Your task to perform on an android device: change alarm snooze length Image 0: 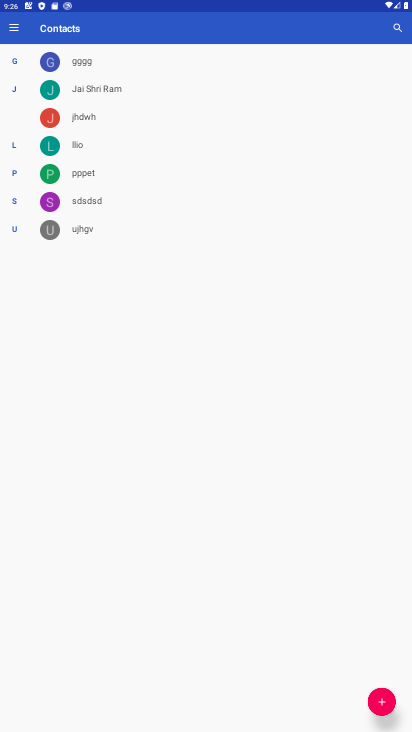
Step 0: press home button
Your task to perform on an android device: change alarm snooze length Image 1: 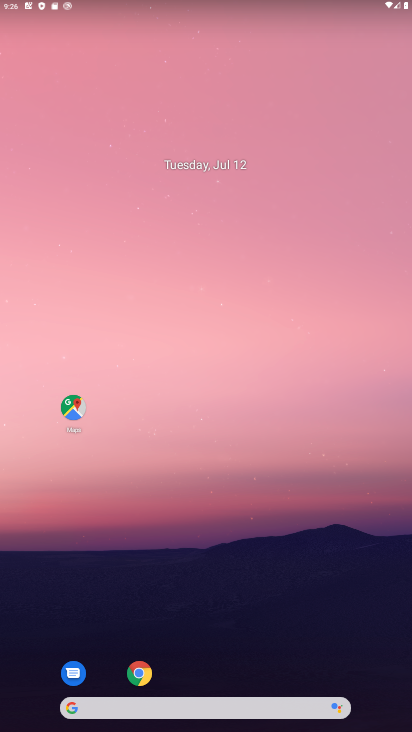
Step 1: drag from (182, 658) to (212, 63)
Your task to perform on an android device: change alarm snooze length Image 2: 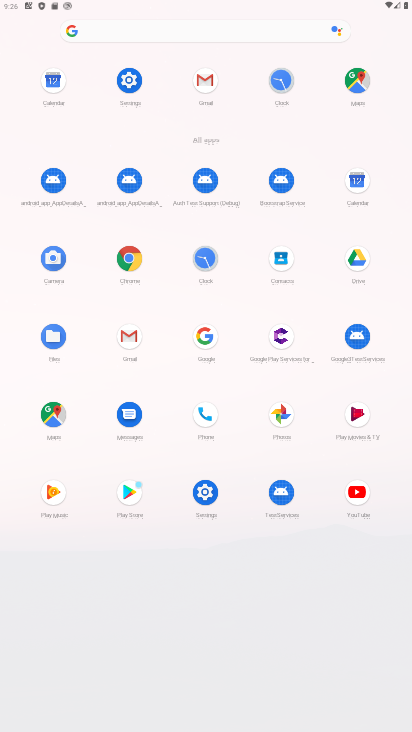
Step 2: click (203, 258)
Your task to perform on an android device: change alarm snooze length Image 3: 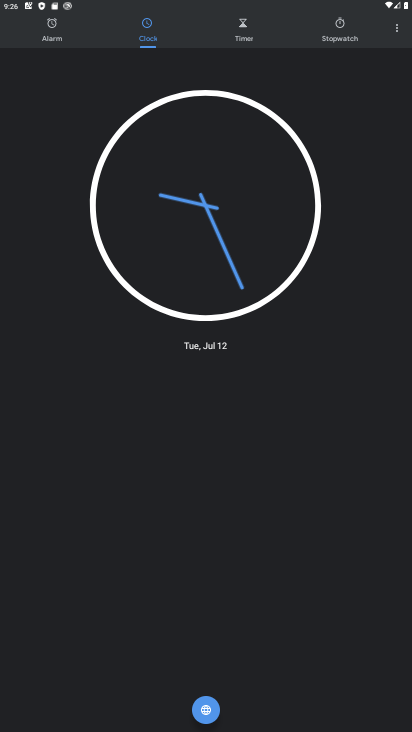
Step 3: click (392, 28)
Your task to perform on an android device: change alarm snooze length Image 4: 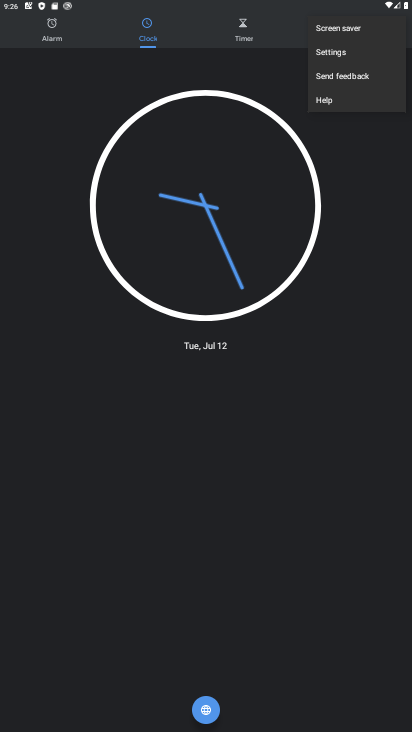
Step 4: click (338, 49)
Your task to perform on an android device: change alarm snooze length Image 5: 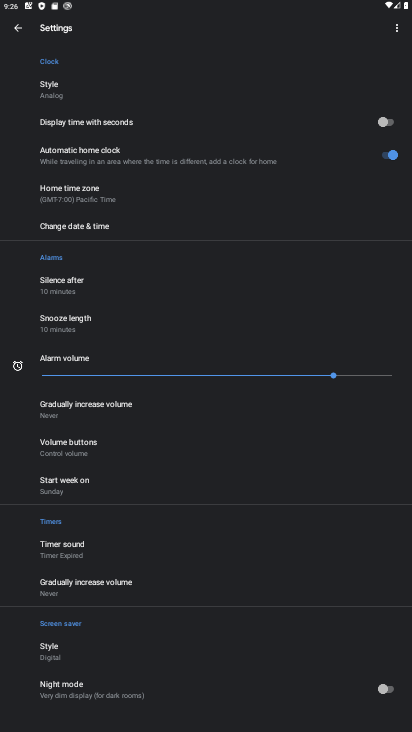
Step 5: click (71, 325)
Your task to perform on an android device: change alarm snooze length Image 6: 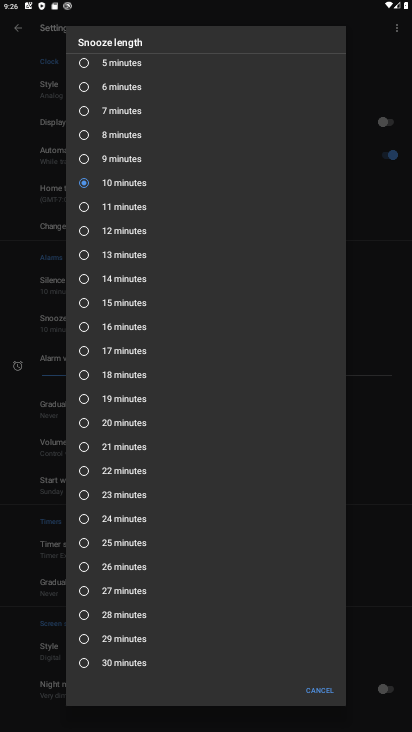
Step 6: click (83, 304)
Your task to perform on an android device: change alarm snooze length Image 7: 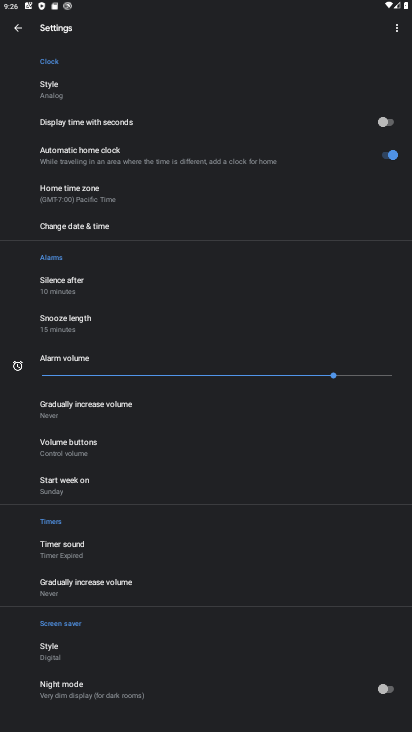
Step 7: task complete